Your task to perform on an android device: Search for razer blade on costco.com, select the first entry, and add it to the cart. Image 0: 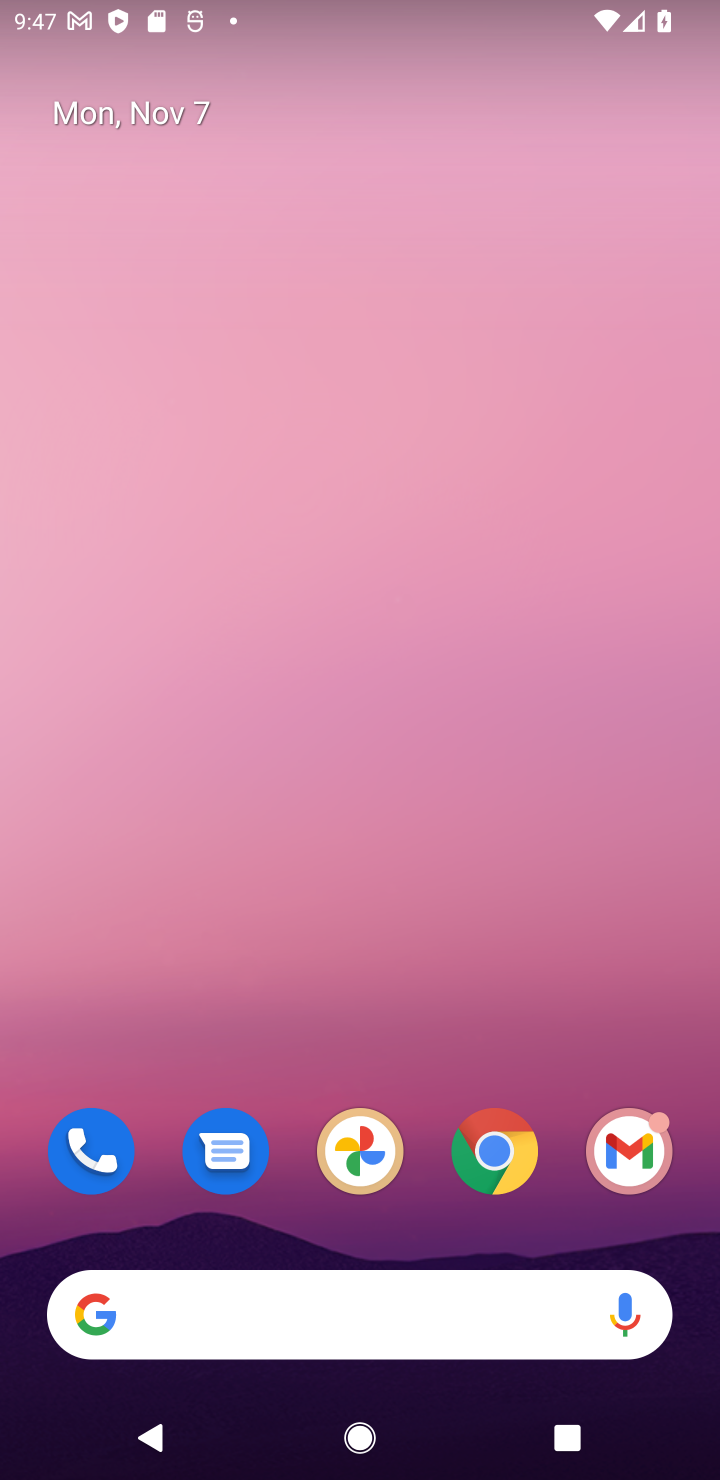
Step 0: click (506, 1159)
Your task to perform on an android device: Search for razer blade on costco.com, select the first entry, and add it to the cart. Image 1: 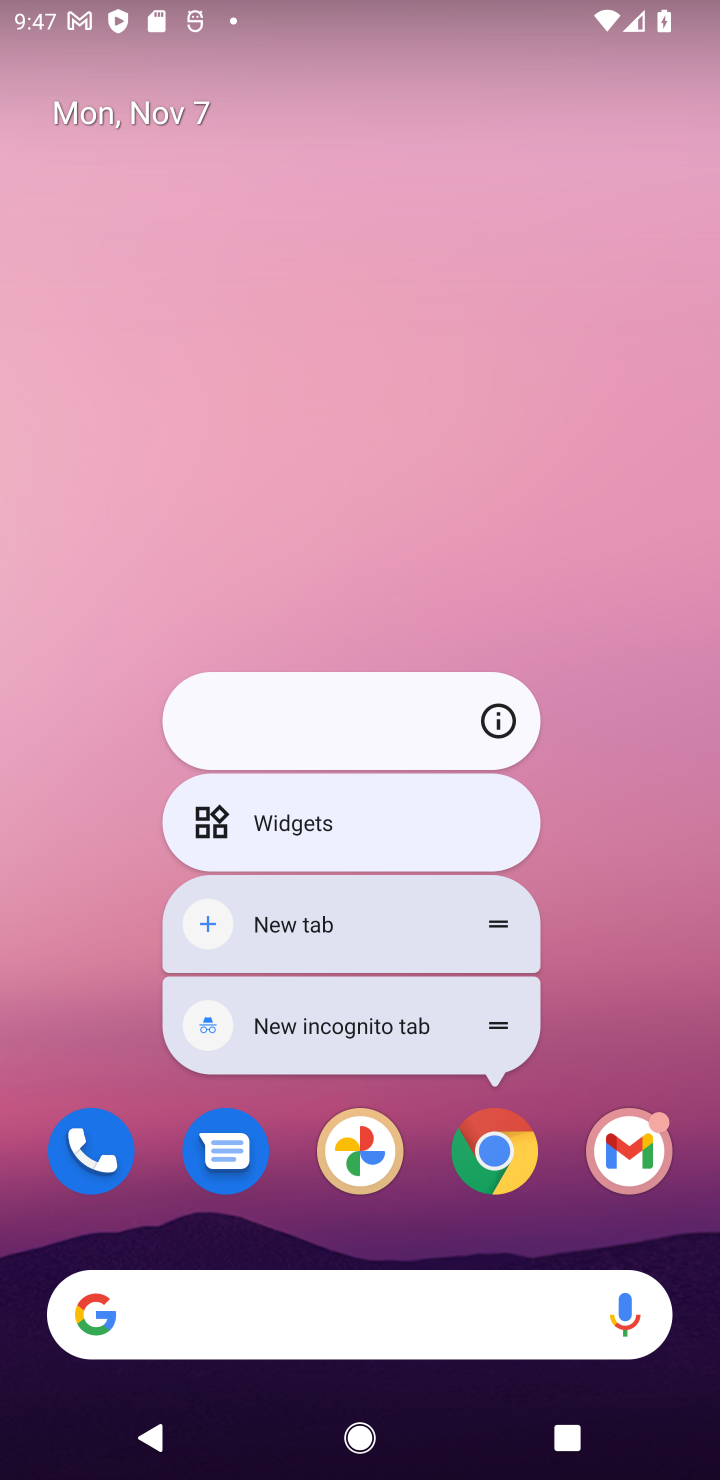
Step 1: click (521, 1143)
Your task to perform on an android device: Search for razer blade on costco.com, select the first entry, and add it to the cart. Image 2: 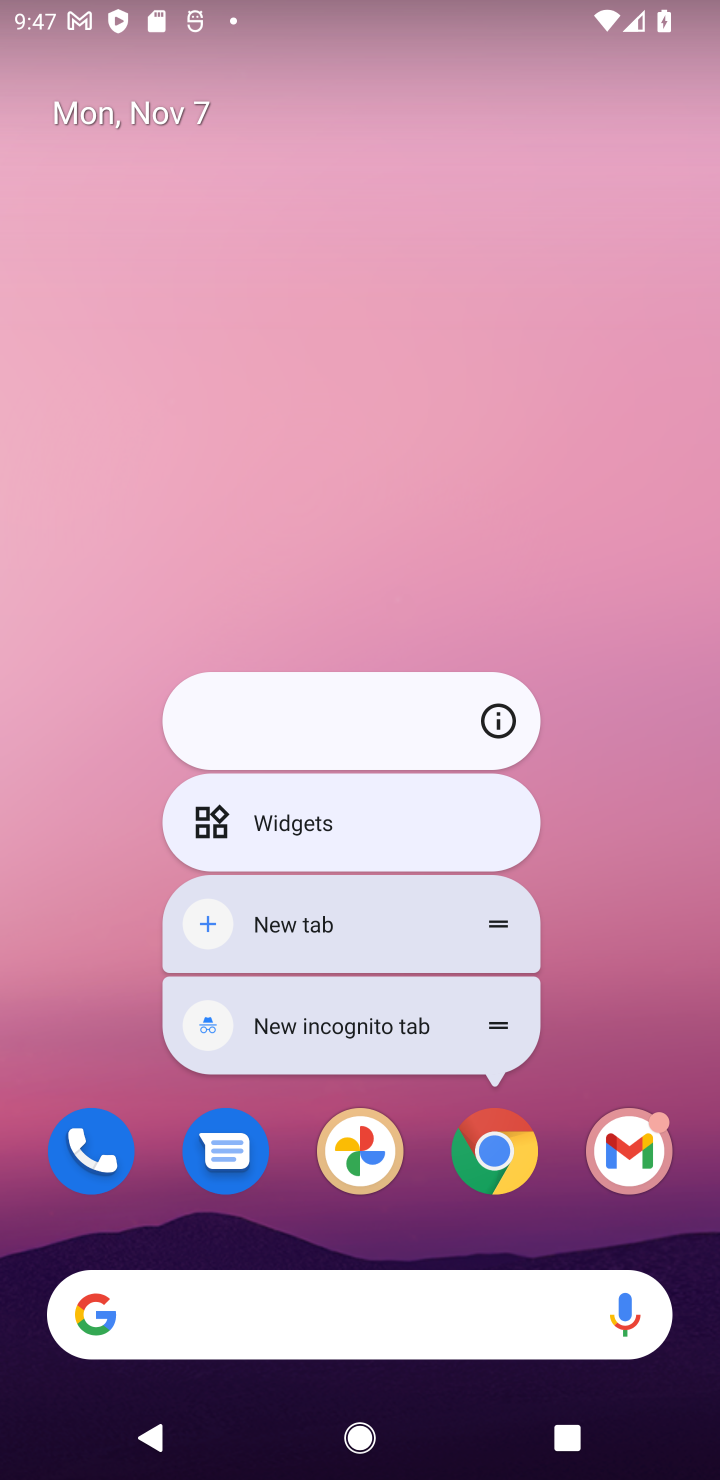
Step 2: click (484, 1141)
Your task to perform on an android device: Search for razer blade on costco.com, select the first entry, and add it to the cart. Image 3: 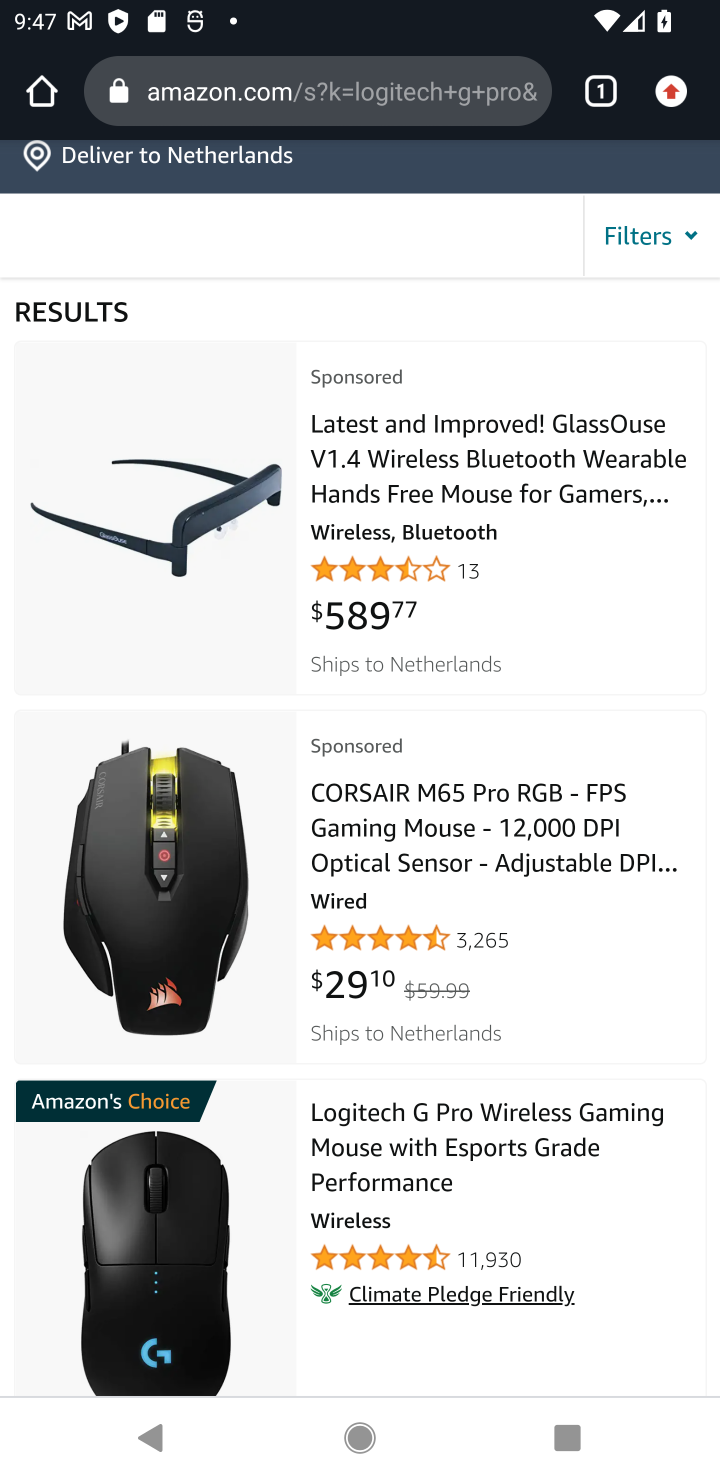
Step 3: click (378, 96)
Your task to perform on an android device: Search for razer blade on costco.com, select the first entry, and add it to the cart. Image 4: 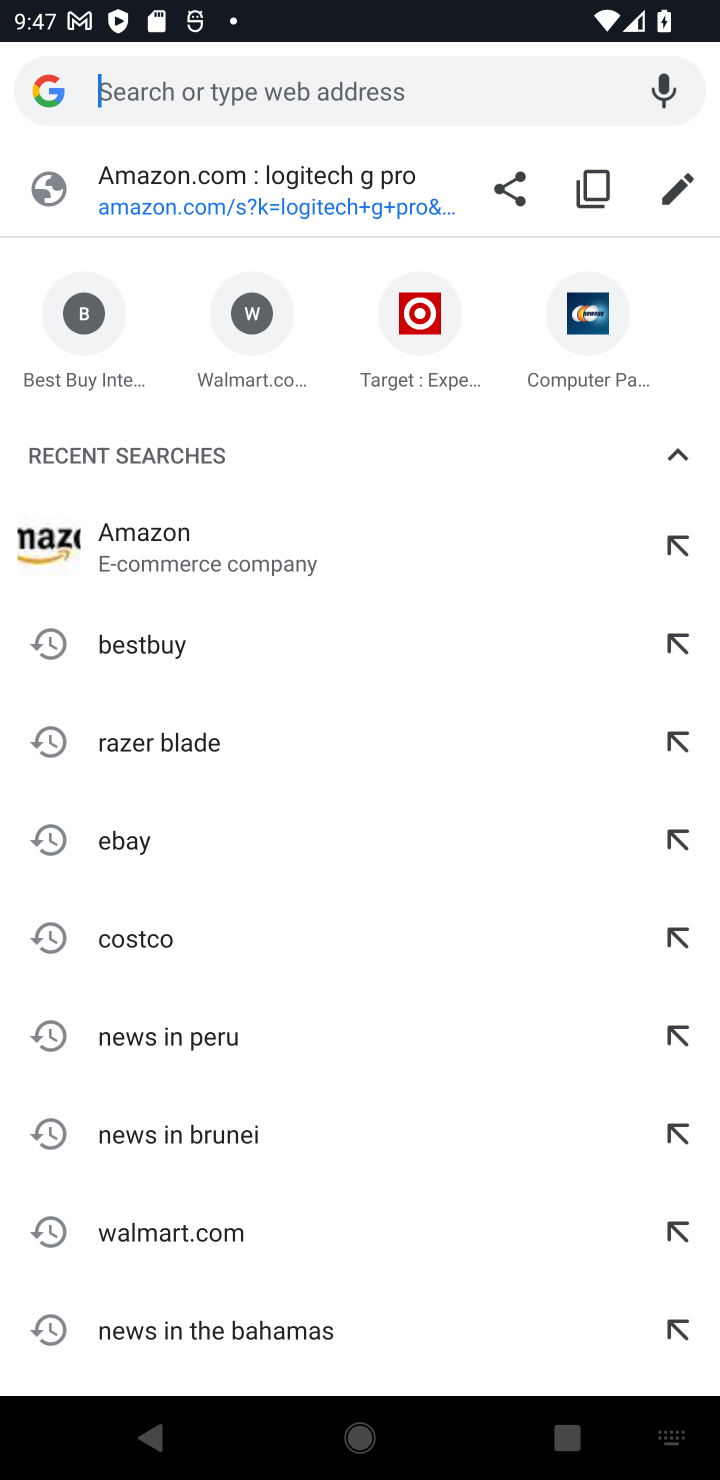
Step 4: type "costco.com"
Your task to perform on an android device: Search for razer blade on costco.com, select the first entry, and add it to the cart. Image 5: 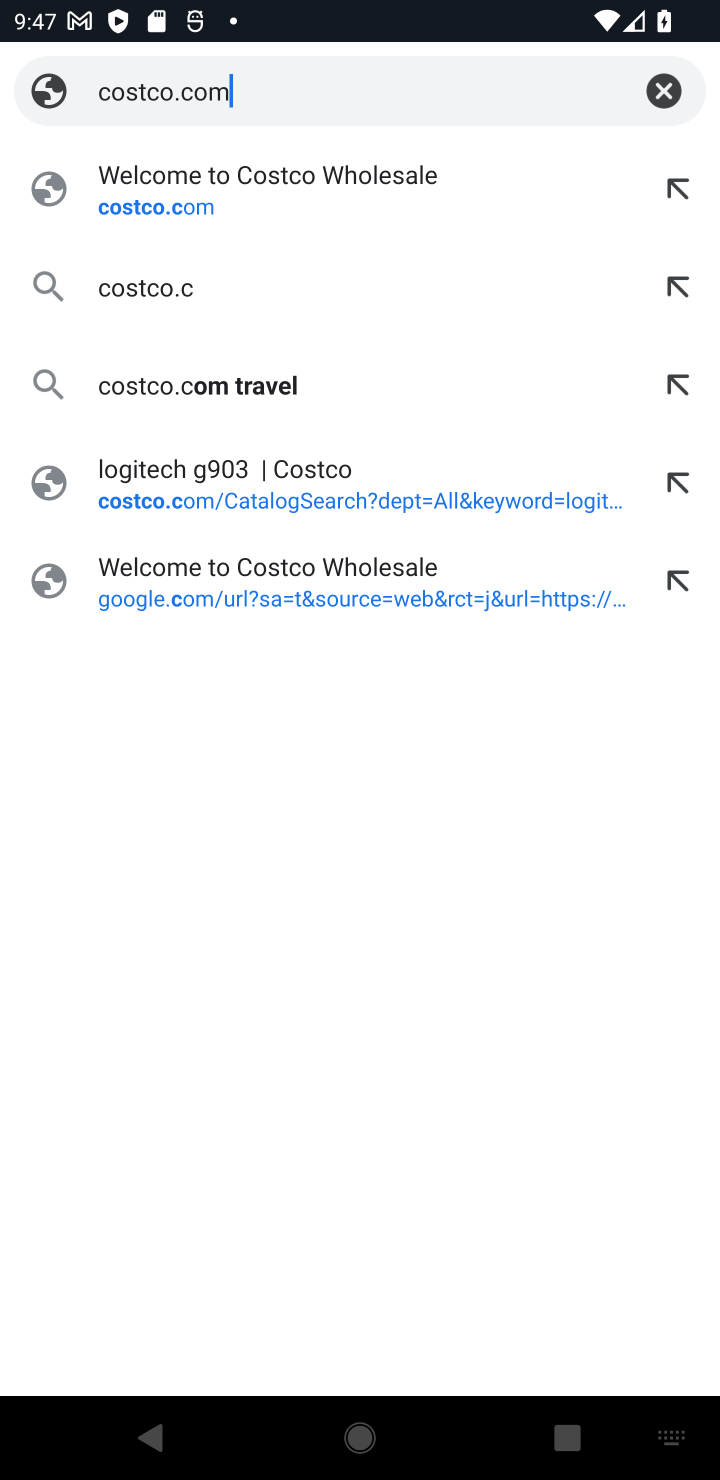
Step 5: press enter
Your task to perform on an android device: Search for razer blade on costco.com, select the first entry, and add it to the cart. Image 6: 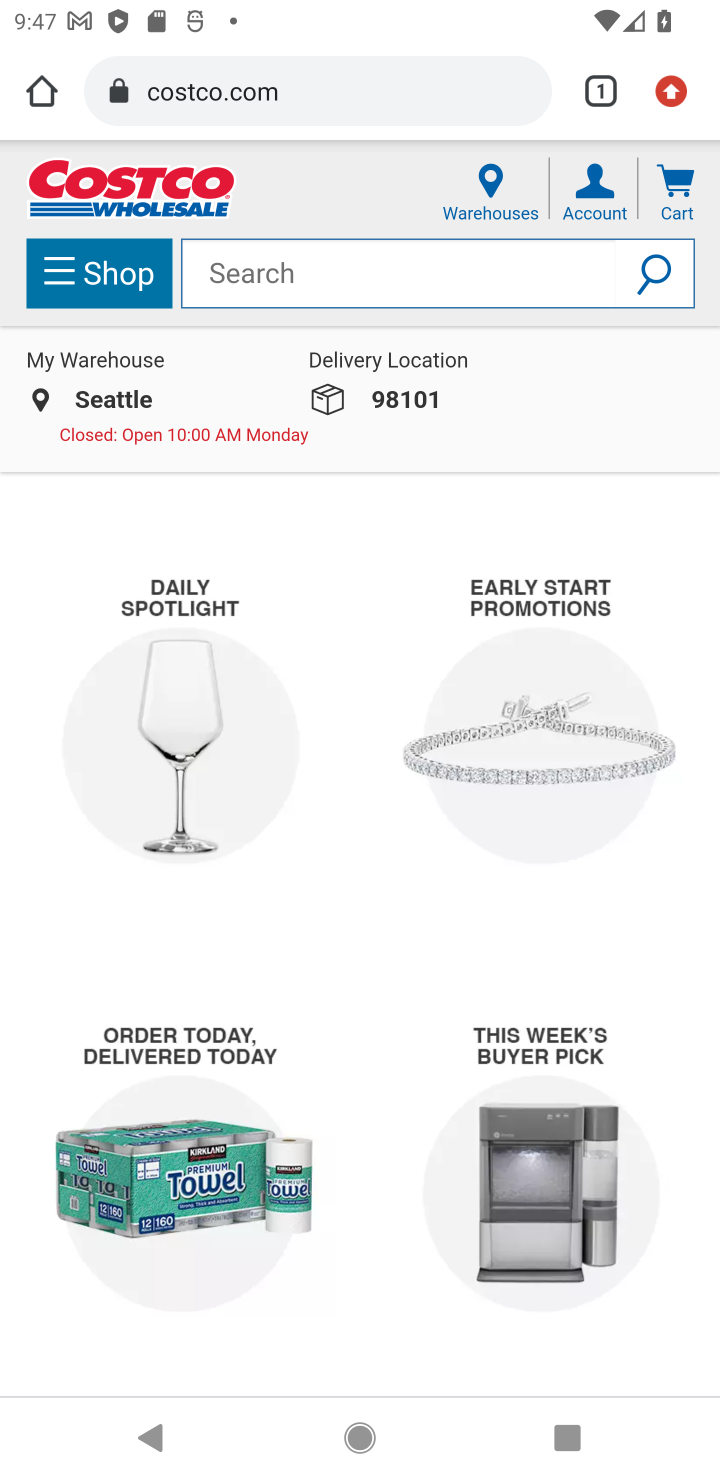
Step 6: click (417, 251)
Your task to perform on an android device: Search for razer blade on costco.com, select the first entry, and add it to the cart. Image 7: 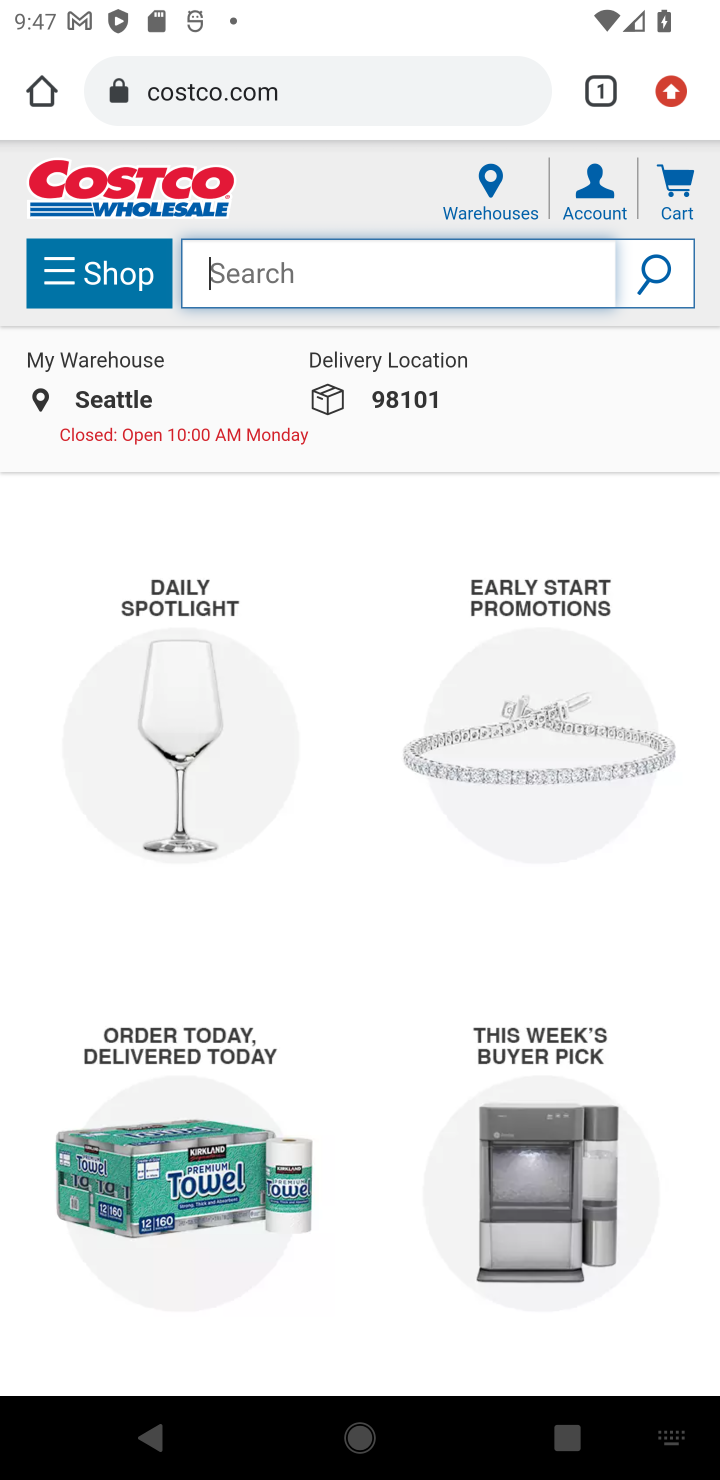
Step 7: type "razer blade"
Your task to perform on an android device: Search for razer blade on costco.com, select the first entry, and add it to the cart. Image 8: 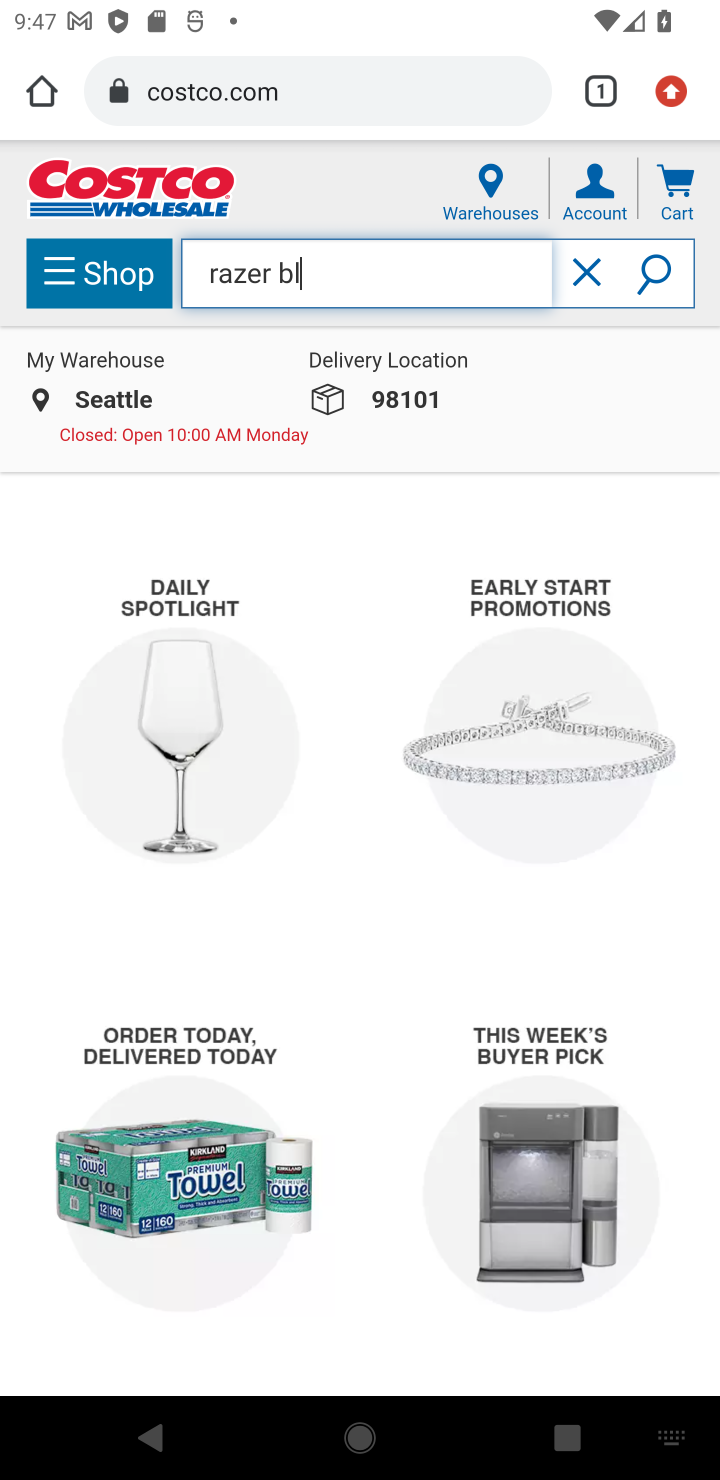
Step 8: press enter
Your task to perform on an android device: Search for razer blade on costco.com, select the first entry, and add it to the cart. Image 9: 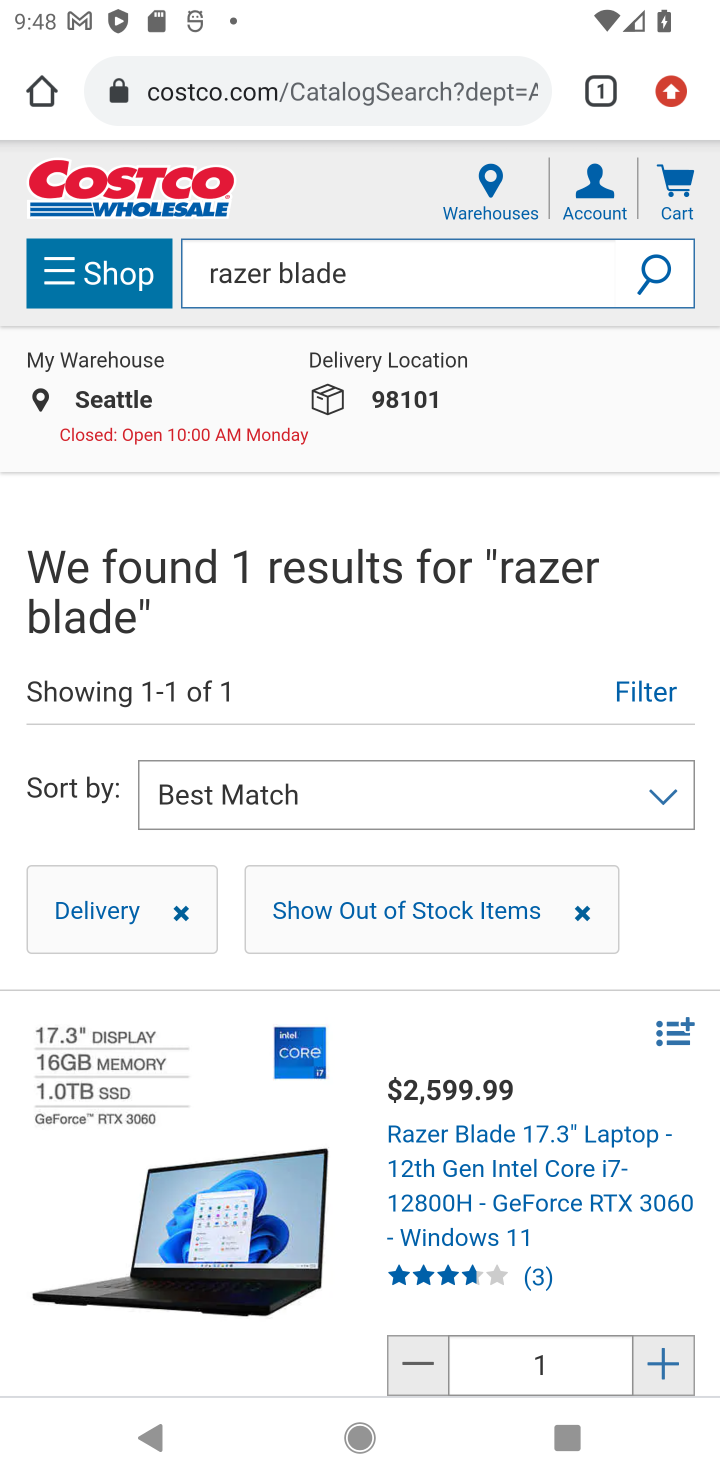
Step 9: drag from (300, 1322) to (421, 882)
Your task to perform on an android device: Search for razer blade on costco.com, select the first entry, and add it to the cart. Image 10: 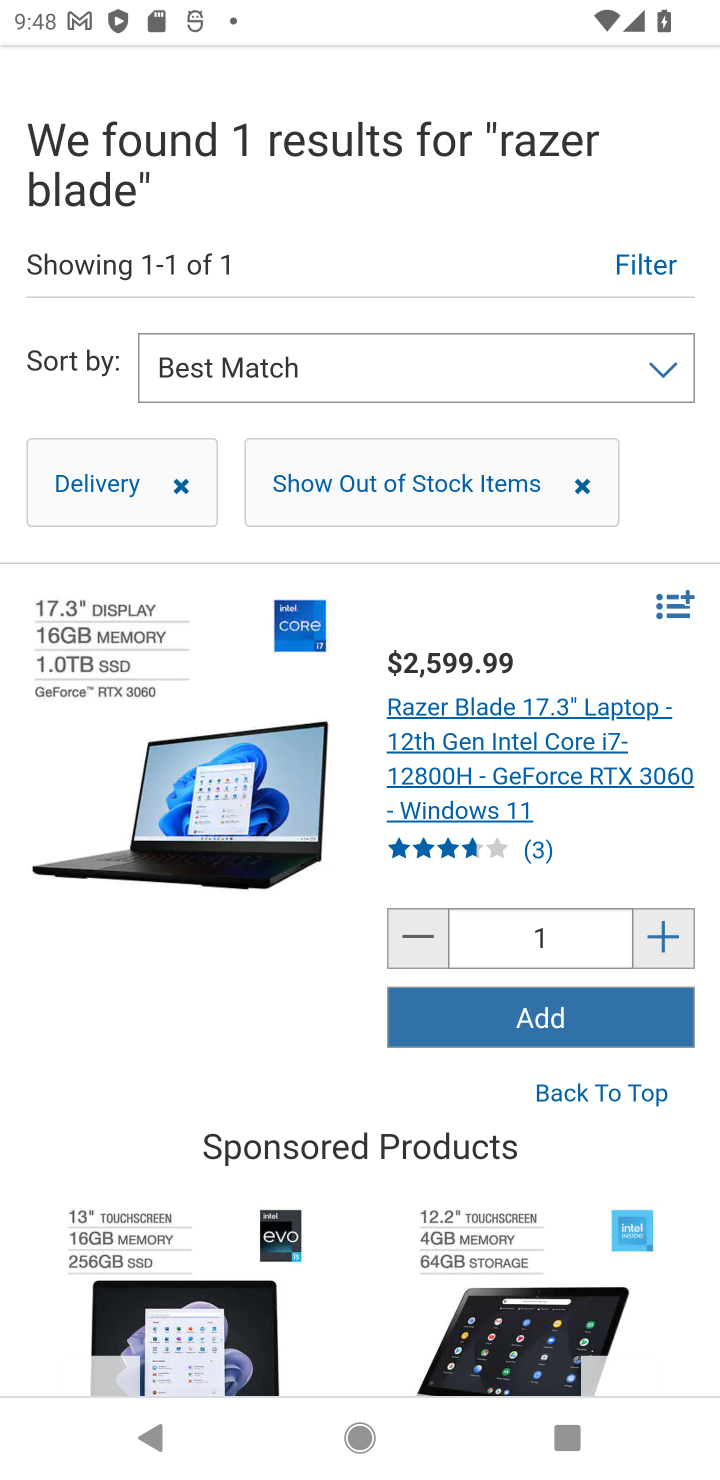
Step 10: click (486, 733)
Your task to perform on an android device: Search for razer blade on costco.com, select the first entry, and add it to the cart. Image 11: 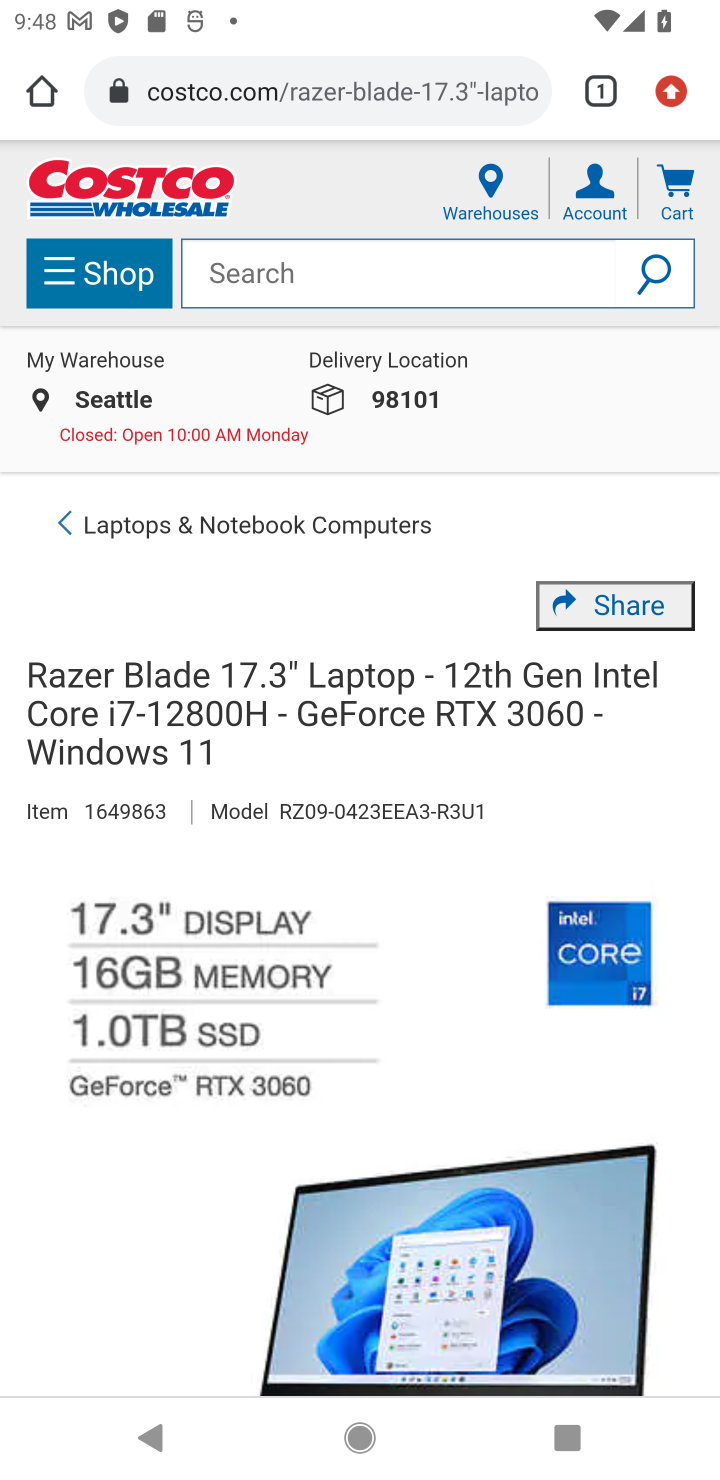
Step 11: drag from (199, 1028) to (473, 3)
Your task to perform on an android device: Search for razer blade on costco.com, select the first entry, and add it to the cart. Image 12: 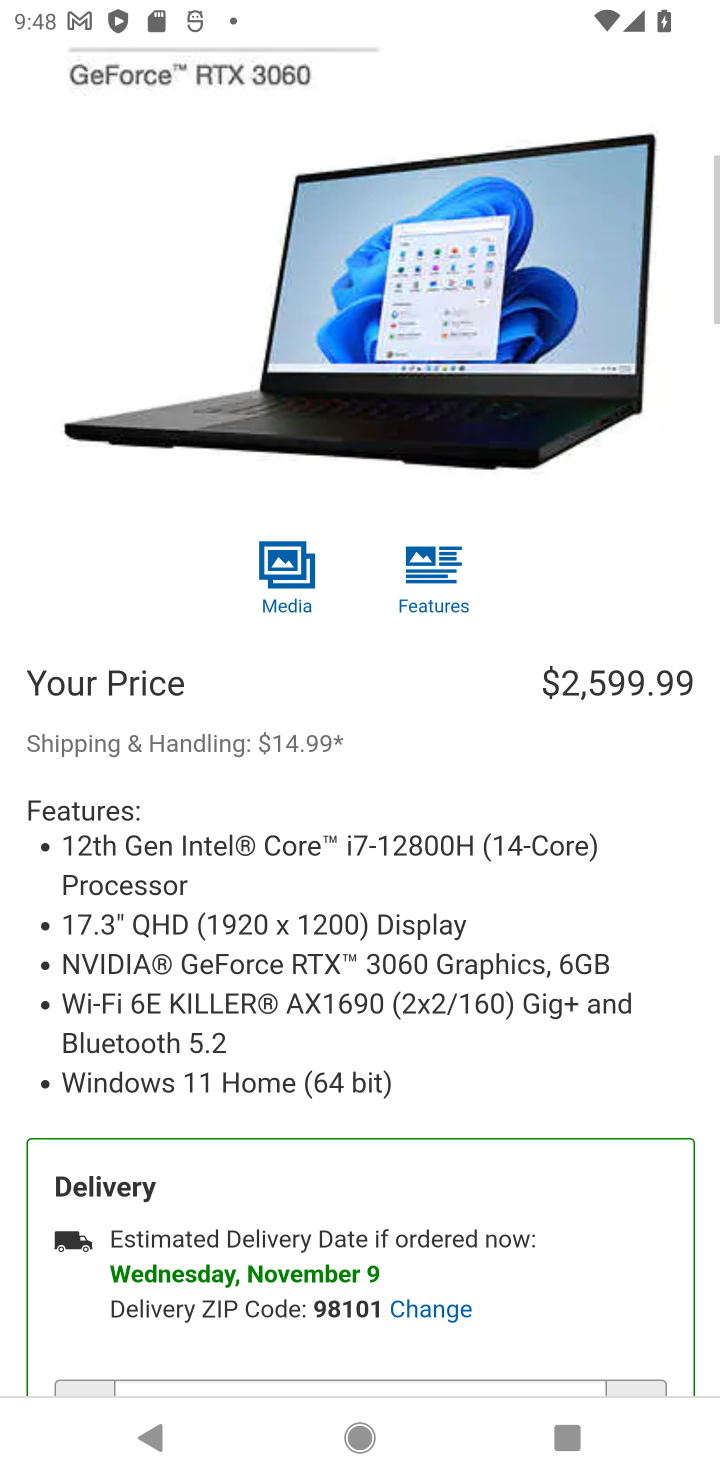
Step 12: drag from (442, 1063) to (587, 39)
Your task to perform on an android device: Search for razer blade on costco.com, select the first entry, and add it to the cart. Image 13: 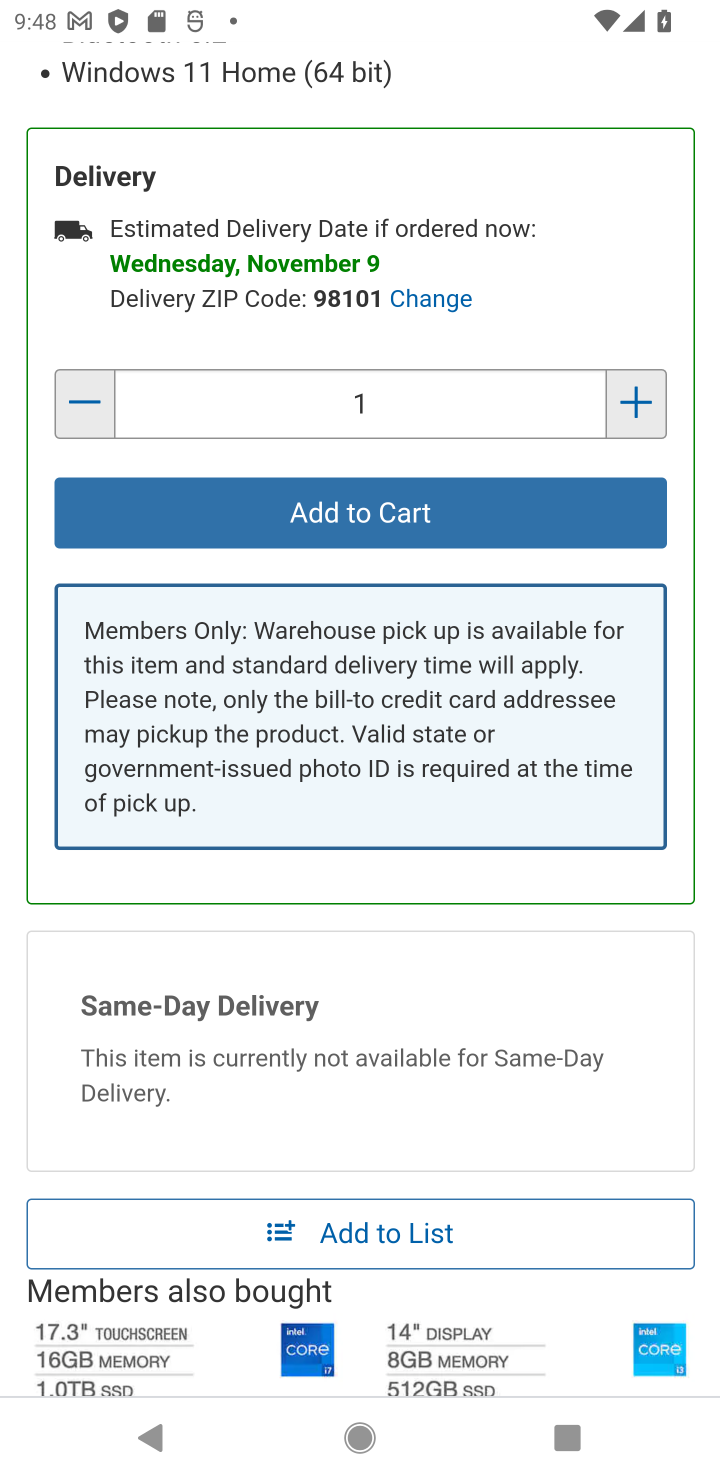
Step 13: click (397, 522)
Your task to perform on an android device: Search for razer blade on costco.com, select the first entry, and add it to the cart. Image 14: 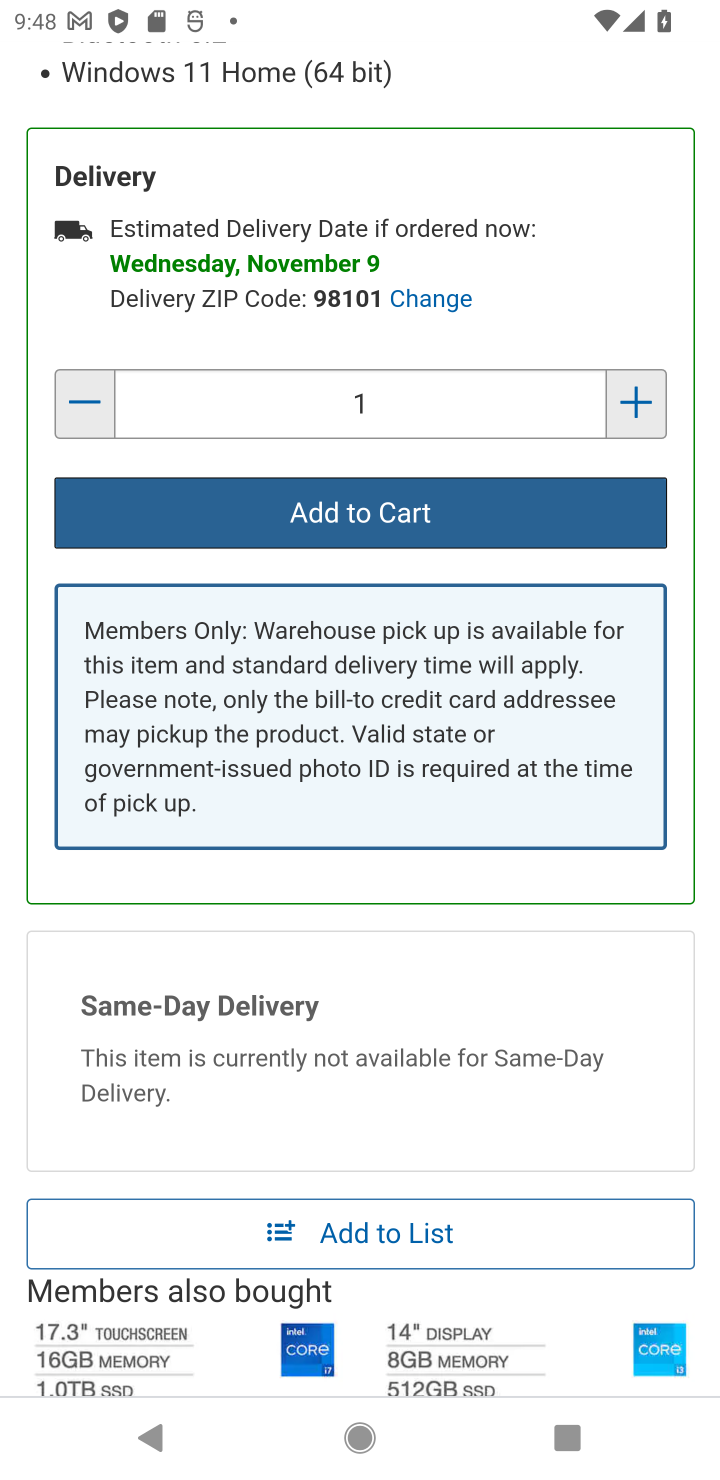
Step 14: drag from (523, 193) to (407, 1216)
Your task to perform on an android device: Search for razer blade on costco.com, select the first entry, and add it to the cart. Image 15: 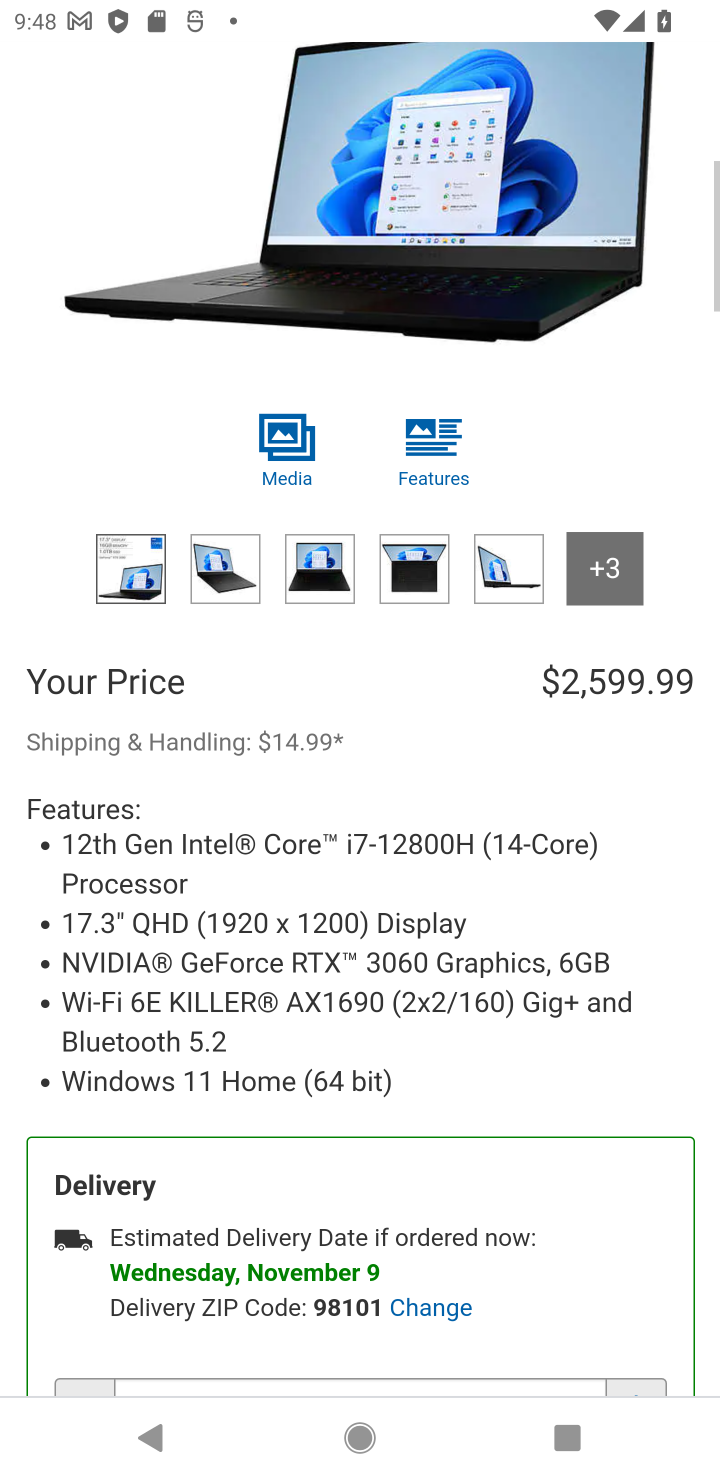
Step 15: drag from (584, 922) to (521, 1295)
Your task to perform on an android device: Search for razer blade on costco.com, select the first entry, and add it to the cart. Image 16: 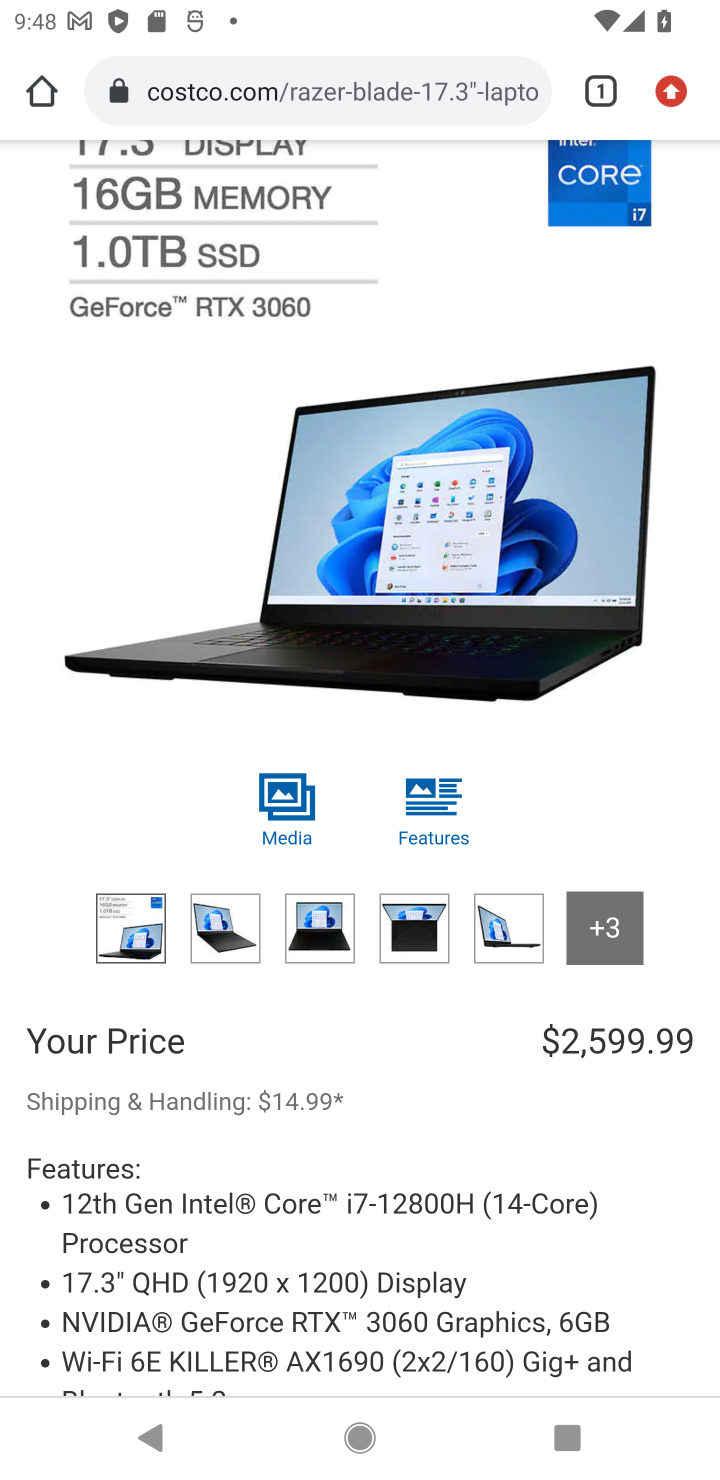
Step 16: drag from (443, 316) to (369, 1371)
Your task to perform on an android device: Search for razer blade on costco.com, select the first entry, and add it to the cart. Image 17: 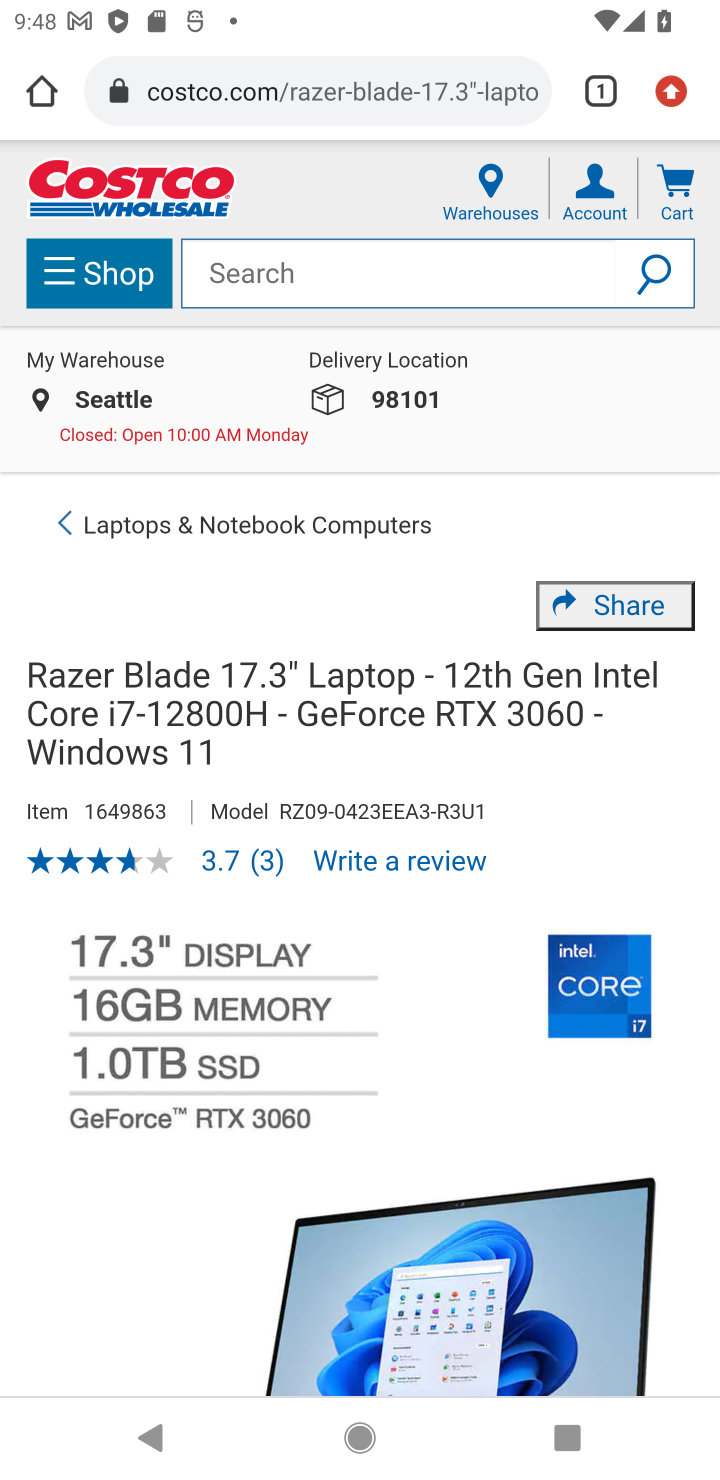
Step 17: drag from (359, 1128) to (691, 133)
Your task to perform on an android device: Search for razer blade on costco.com, select the first entry, and add it to the cart. Image 18: 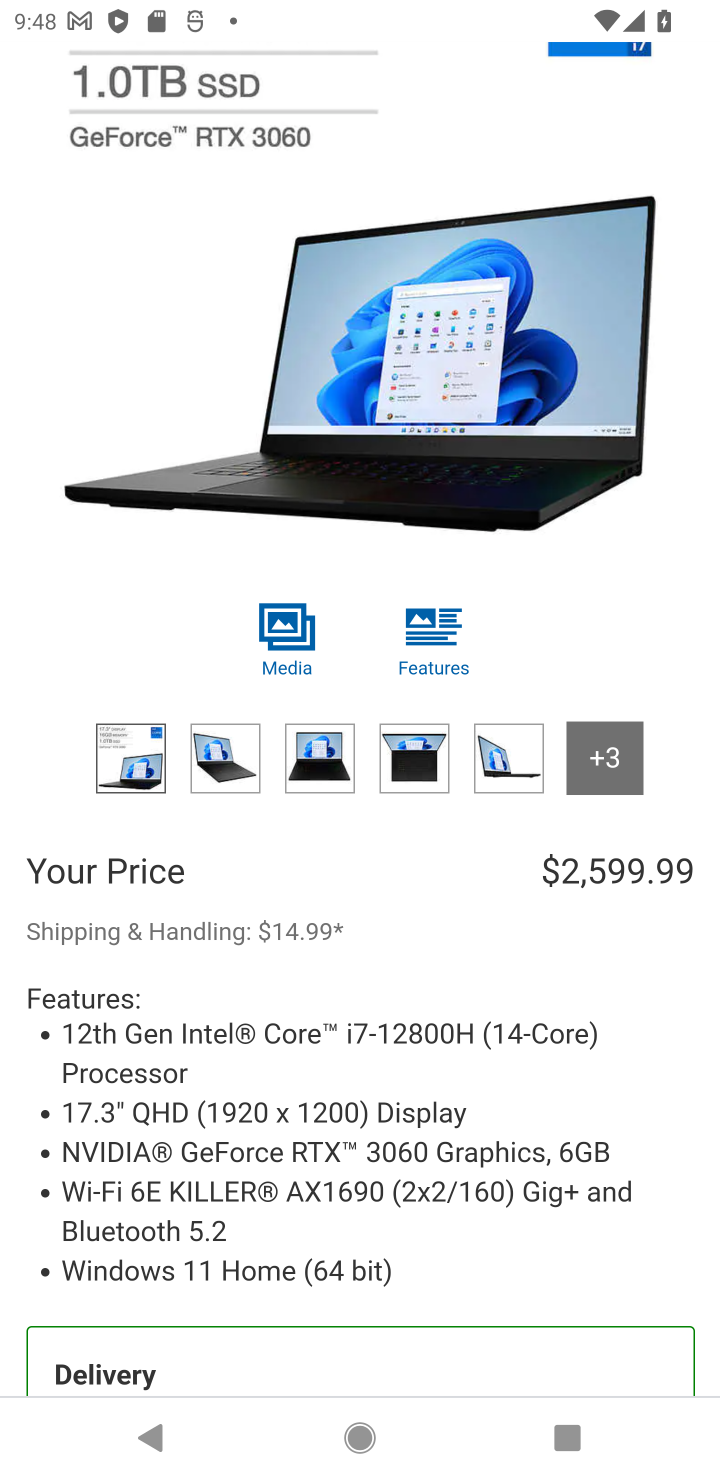
Step 18: drag from (424, 1038) to (634, 184)
Your task to perform on an android device: Search for razer blade on costco.com, select the first entry, and add it to the cart. Image 19: 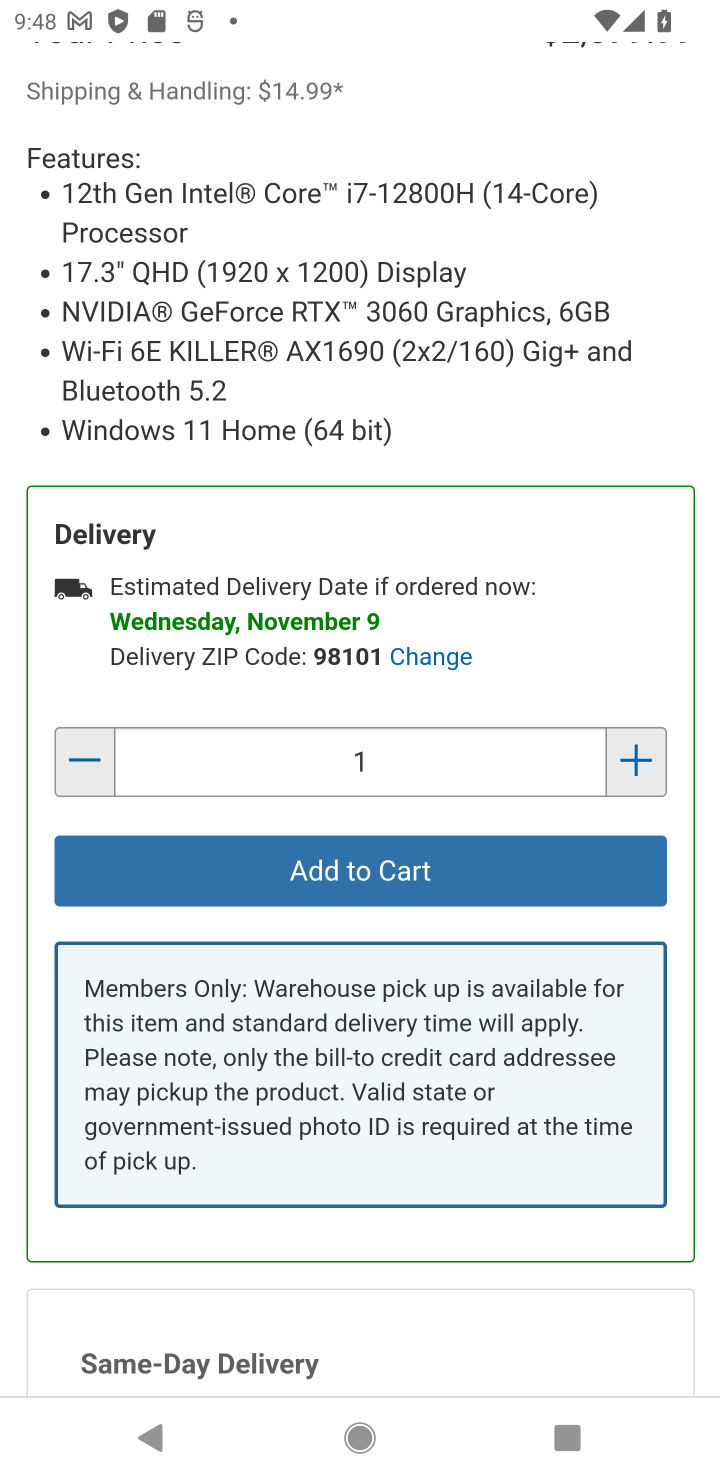
Step 19: click (397, 870)
Your task to perform on an android device: Search for razer blade on costco.com, select the first entry, and add it to the cart. Image 20: 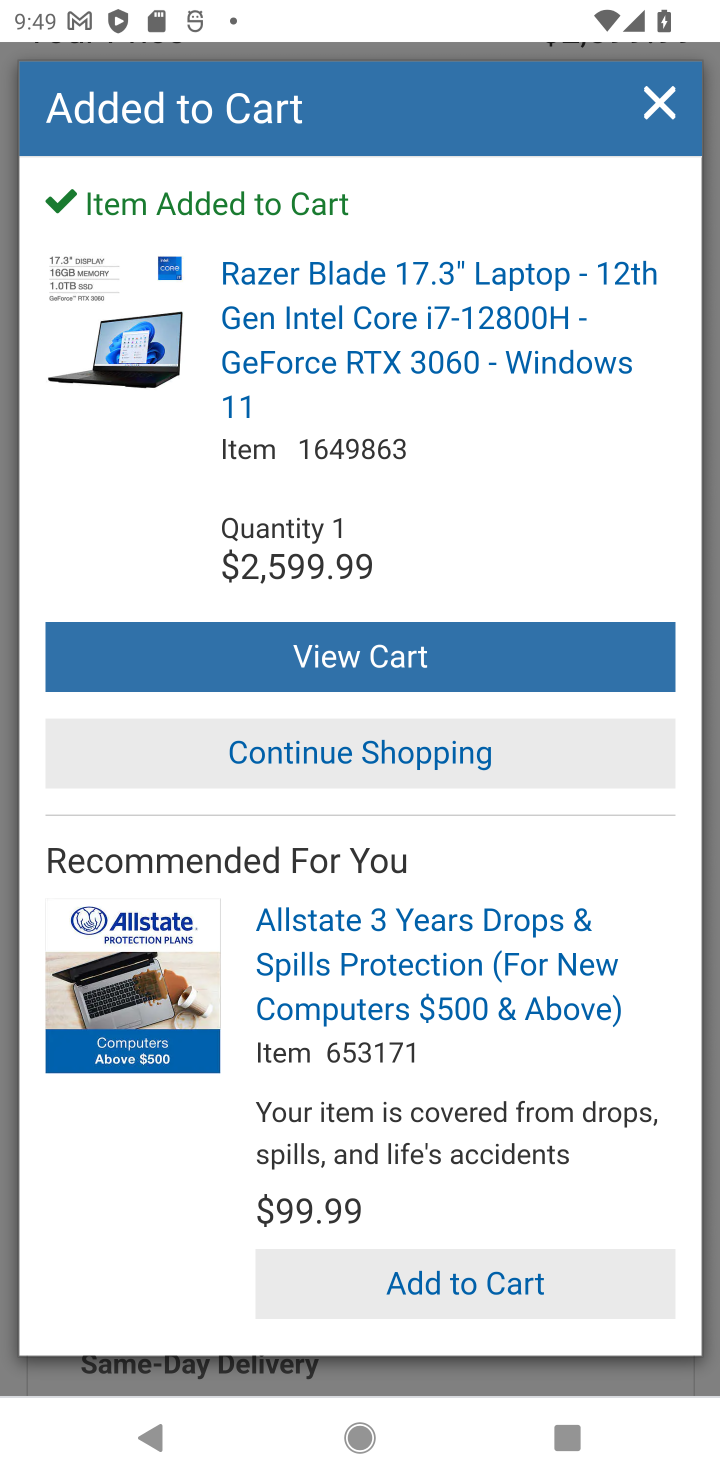
Step 20: drag from (572, 346) to (425, 1355)
Your task to perform on an android device: Search for razer blade on costco.com, select the first entry, and add it to the cart. Image 21: 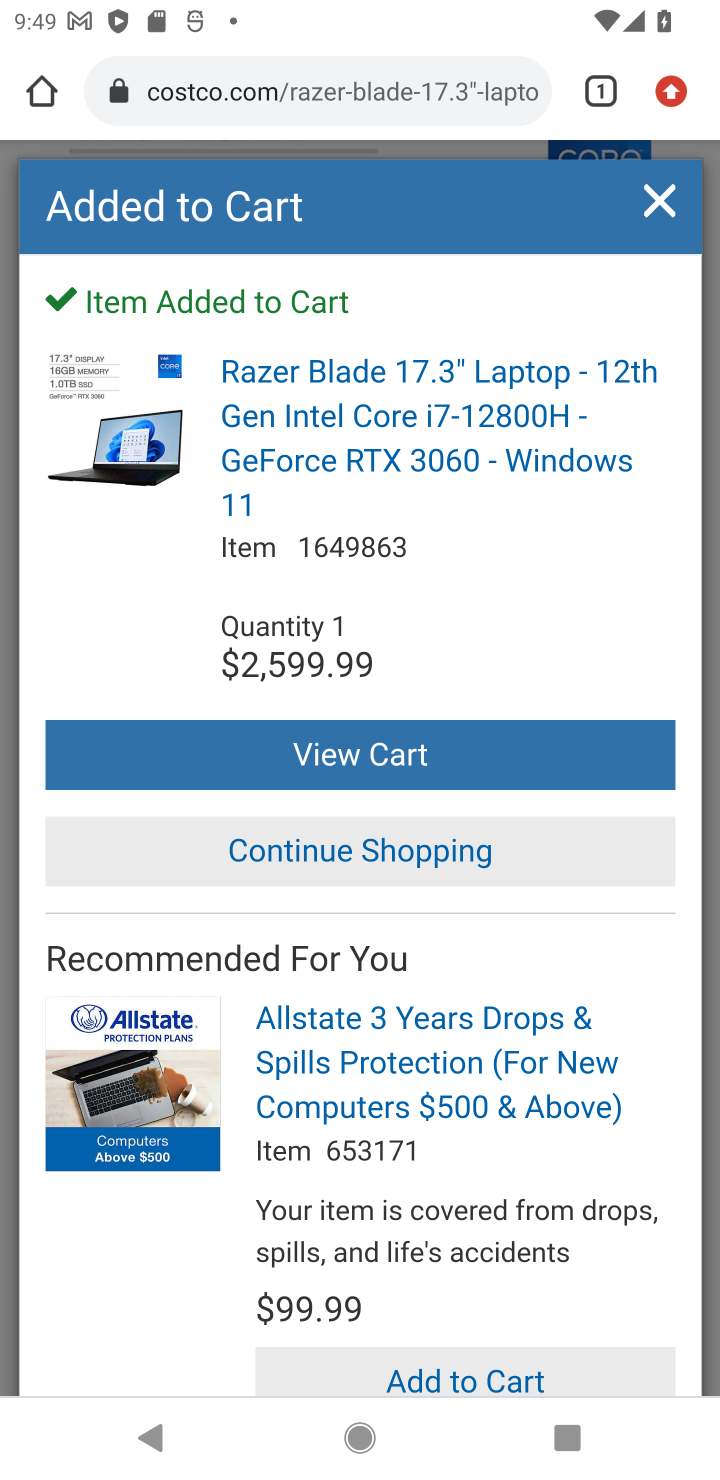
Step 21: click (394, 754)
Your task to perform on an android device: Search for razer blade on costco.com, select the first entry, and add it to the cart. Image 22: 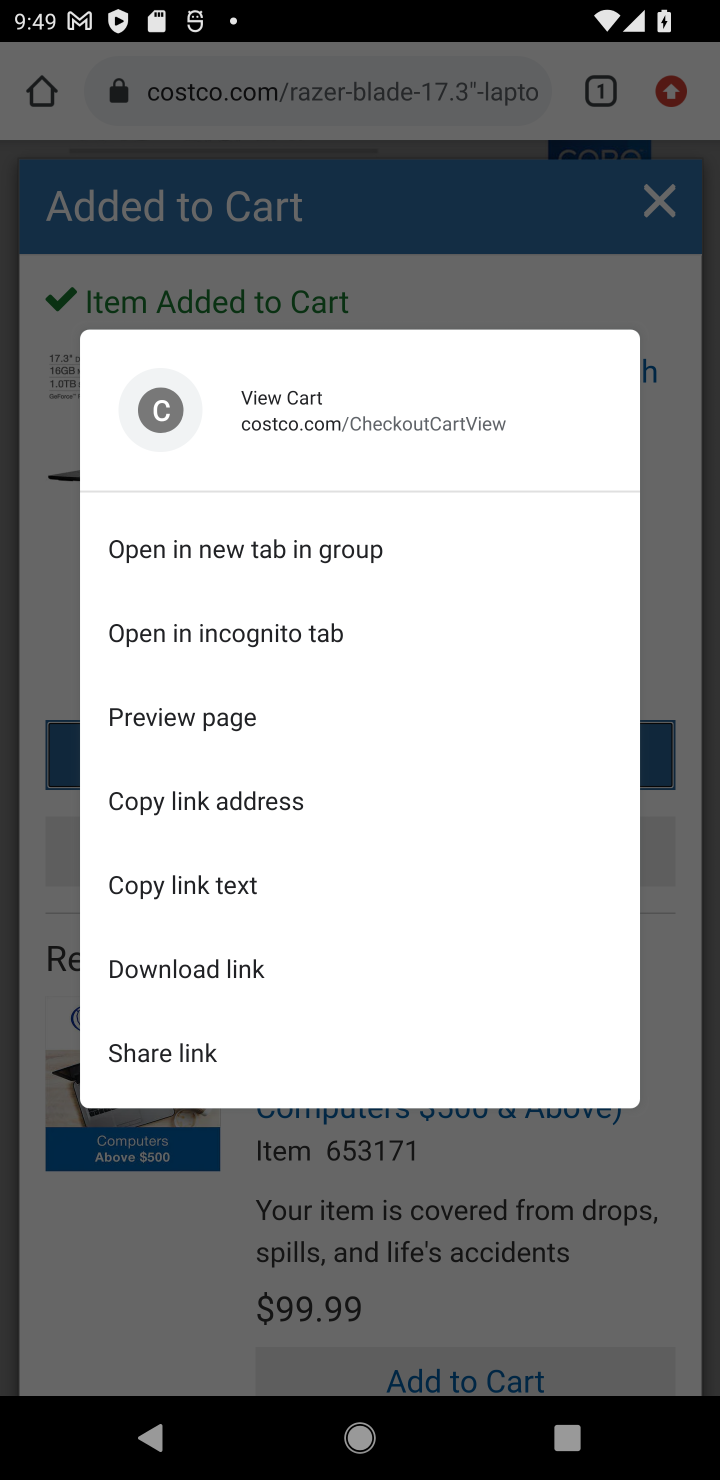
Step 22: click (653, 530)
Your task to perform on an android device: Search for razer blade on costco.com, select the first entry, and add it to the cart. Image 23: 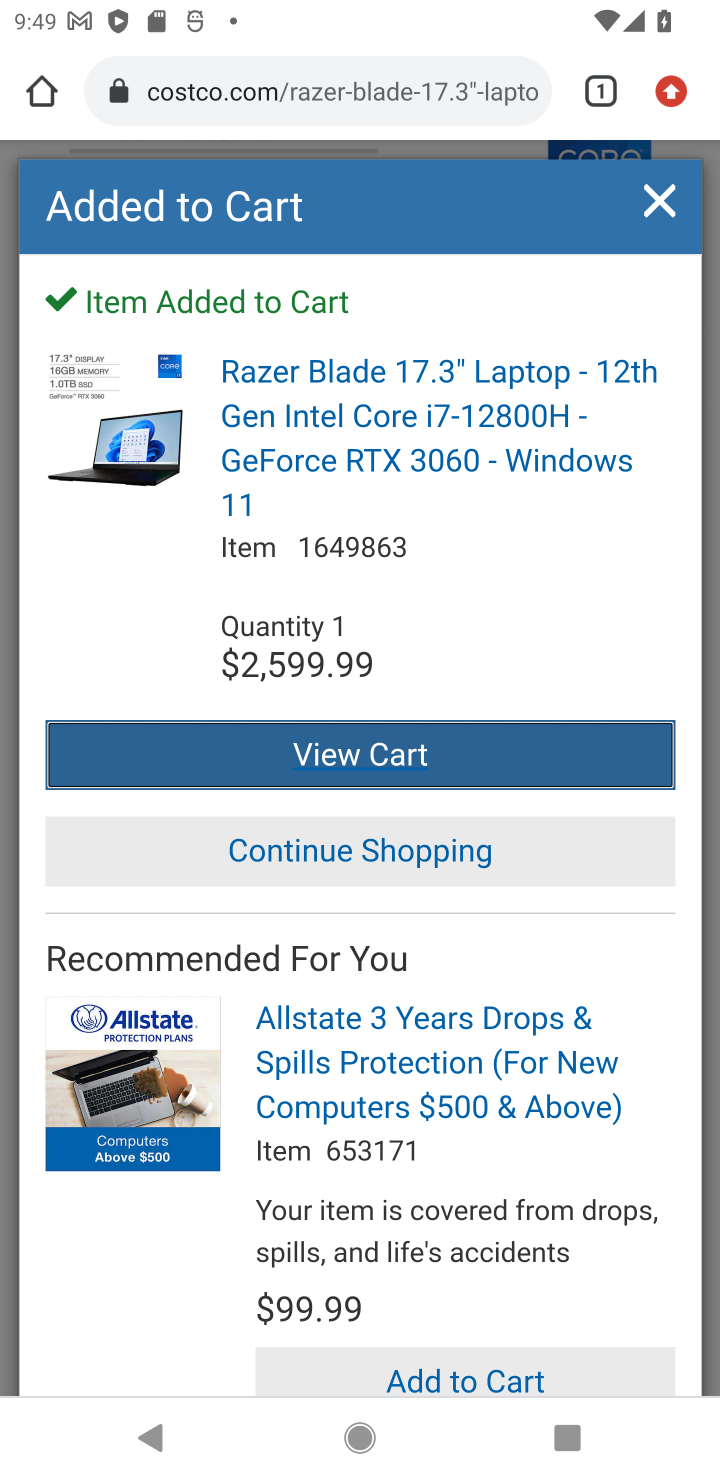
Step 23: click (396, 755)
Your task to perform on an android device: Search for razer blade on costco.com, select the first entry, and add it to the cart. Image 24: 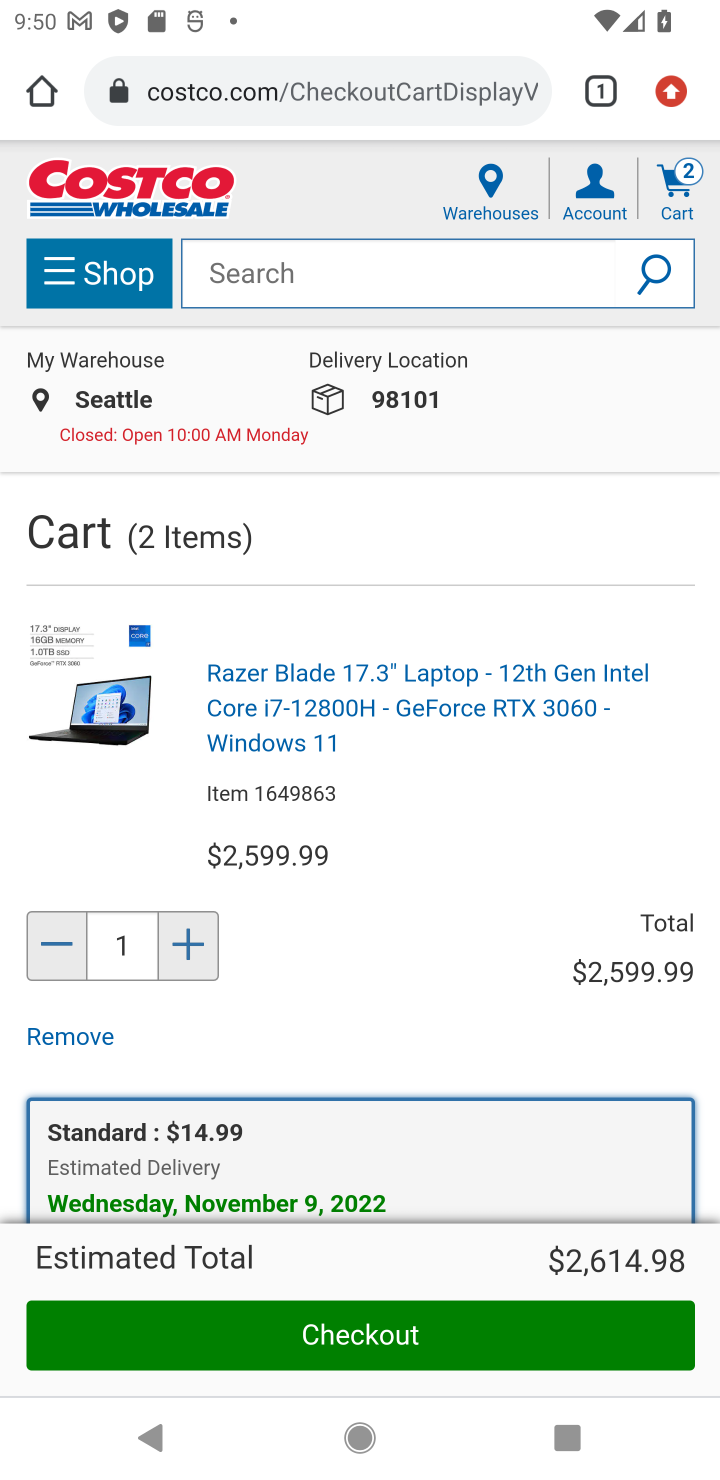
Step 24: task complete